Your task to perform on an android device: check storage Image 0: 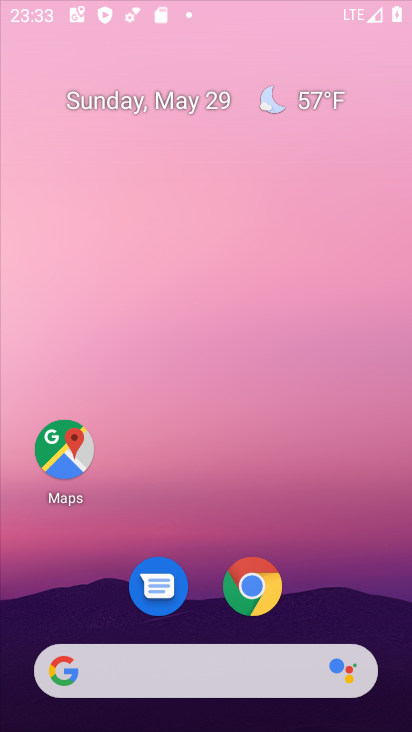
Step 0: press back button
Your task to perform on an android device: check storage Image 1: 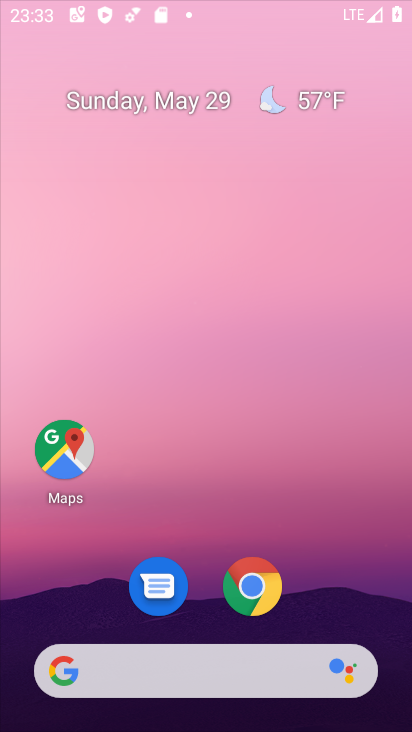
Step 1: click (298, 106)
Your task to perform on an android device: check storage Image 2: 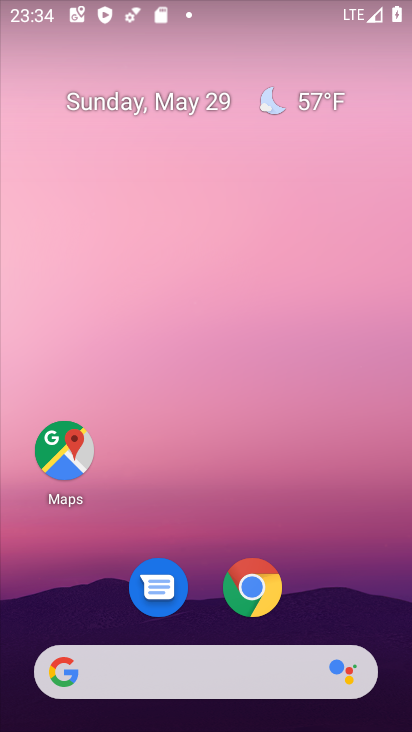
Step 2: drag from (399, 640) to (303, 262)
Your task to perform on an android device: check storage Image 3: 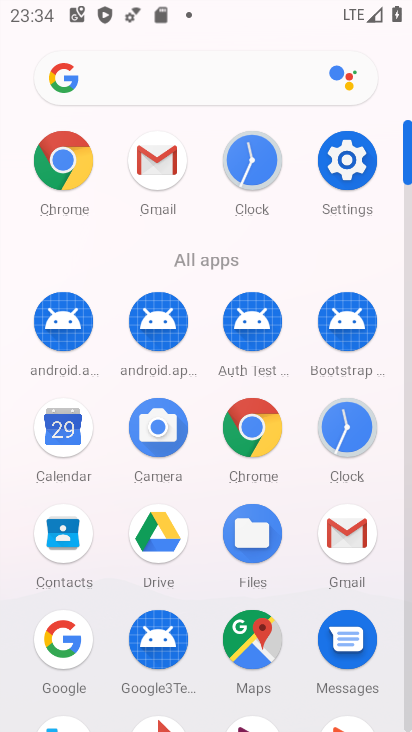
Step 3: click (352, 161)
Your task to perform on an android device: check storage Image 4: 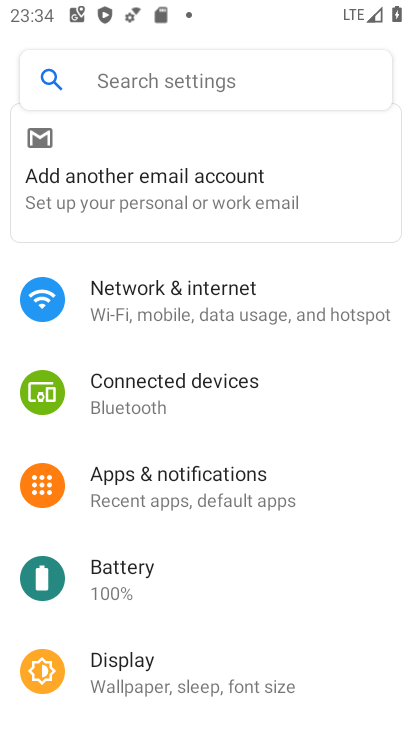
Step 4: drag from (260, 595) to (215, 241)
Your task to perform on an android device: check storage Image 5: 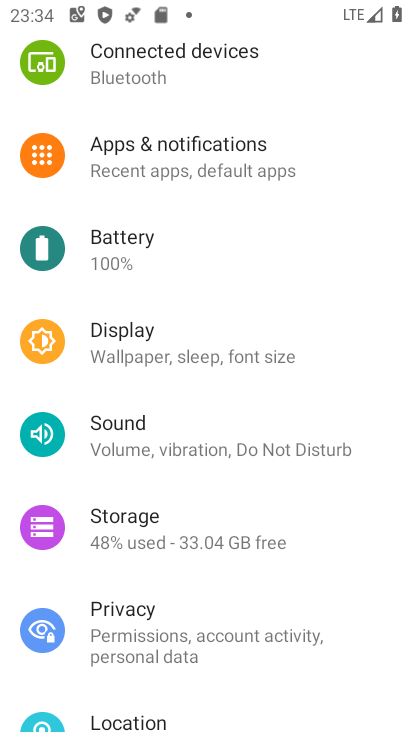
Step 5: click (169, 527)
Your task to perform on an android device: check storage Image 6: 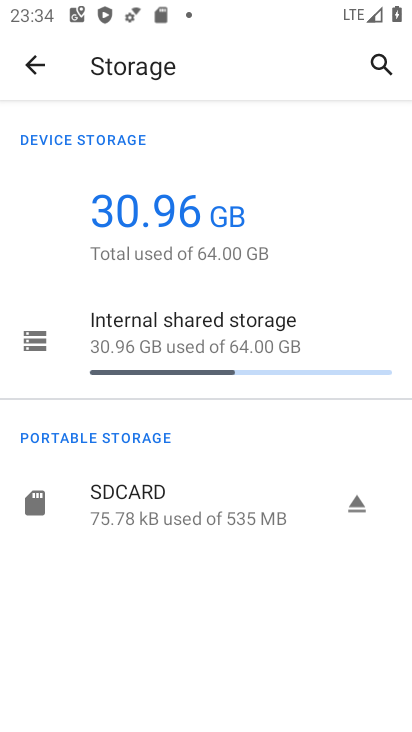
Step 6: task complete